Your task to perform on an android device: Open Maps and search for coffee Image 0: 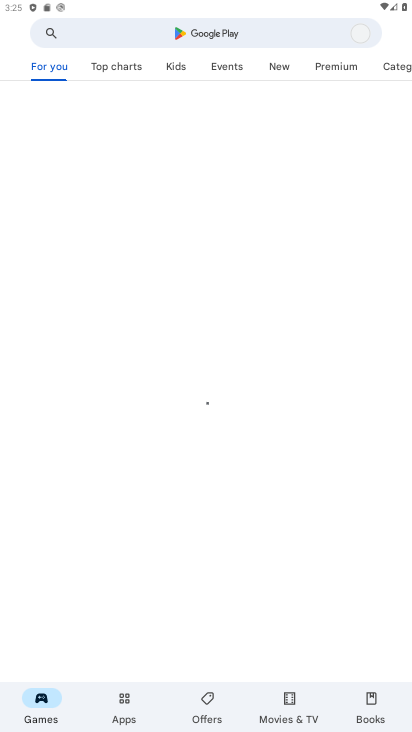
Step 0: press back button
Your task to perform on an android device: Open Maps and search for coffee Image 1: 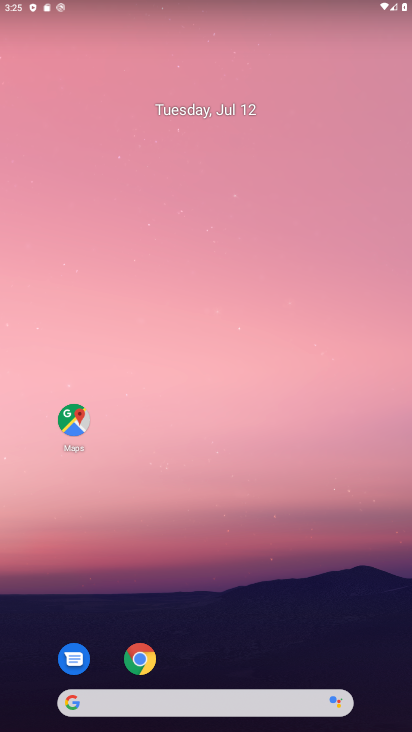
Step 1: click (66, 420)
Your task to perform on an android device: Open Maps and search for coffee Image 2: 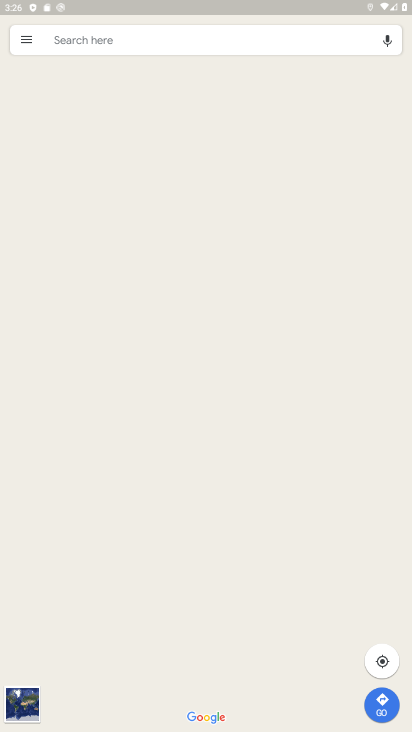
Step 2: click (66, 420)
Your task to perform on an android device: Open Maps and search for coffee Image 3: 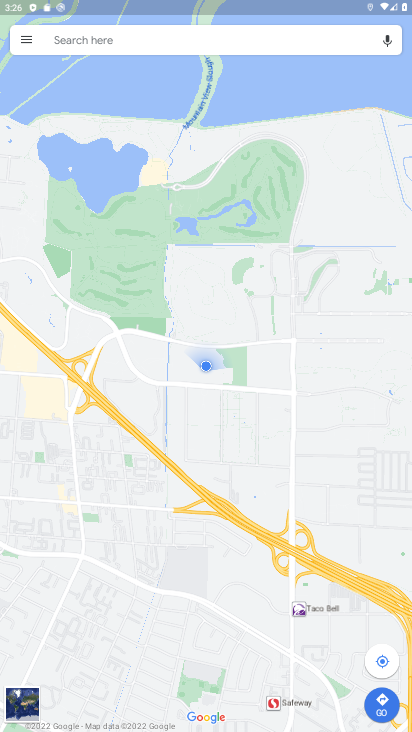
Step 3: click (133, 36)
Your task to perform on an android device: Open Maps and search for coffee Image 4: 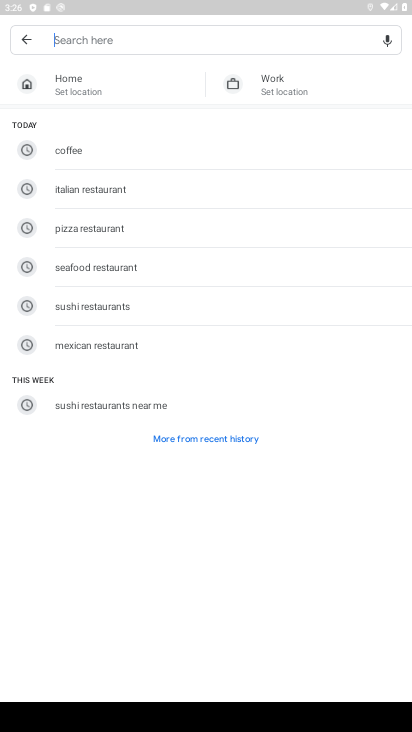
Step 4: click (75, 147)
Your task to perform on an android device: Open Maps and search for coffee Image 5: 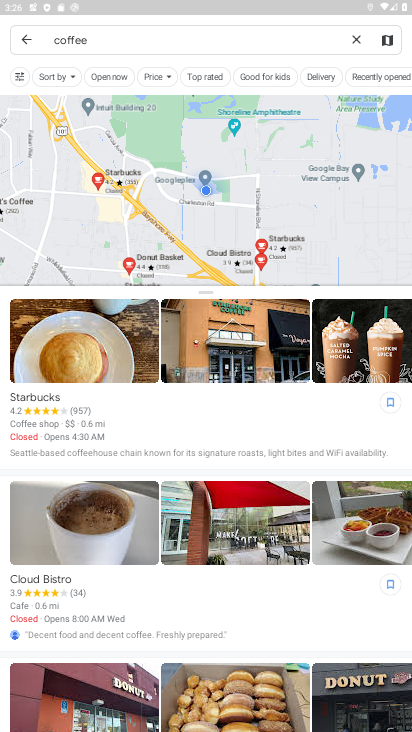
Step 5: task complete